Your task to perform on an android device: delete browsing data in the chrome app Image 0: 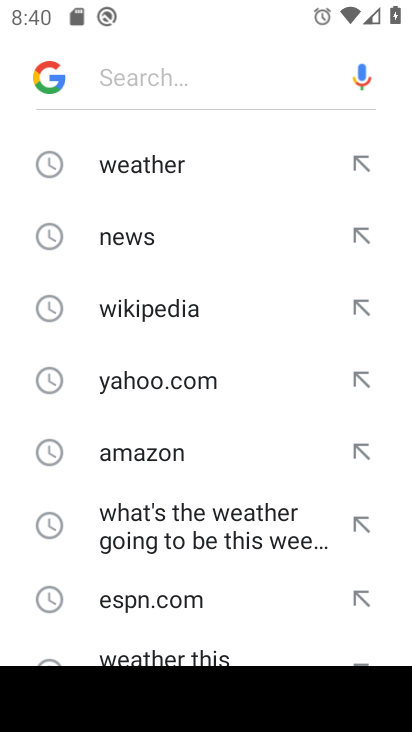
Step 0: press home button
Your task to perform on an android device: delete browsing data in the chrome app Image 1: 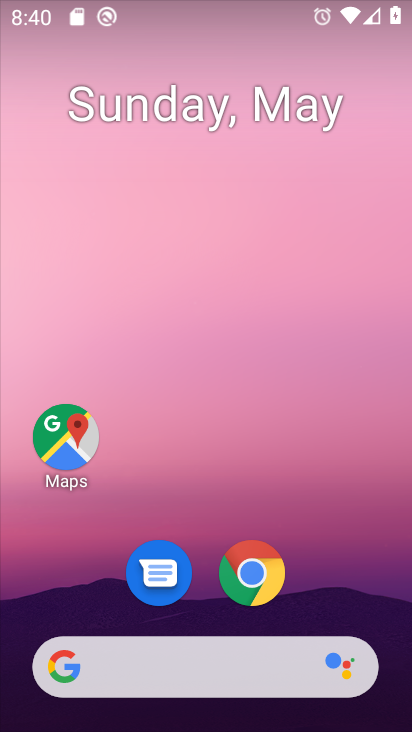
Step 1: click (245, 578)
Your task to perform on an android device: delete browsing data in the chrome app Image 2: 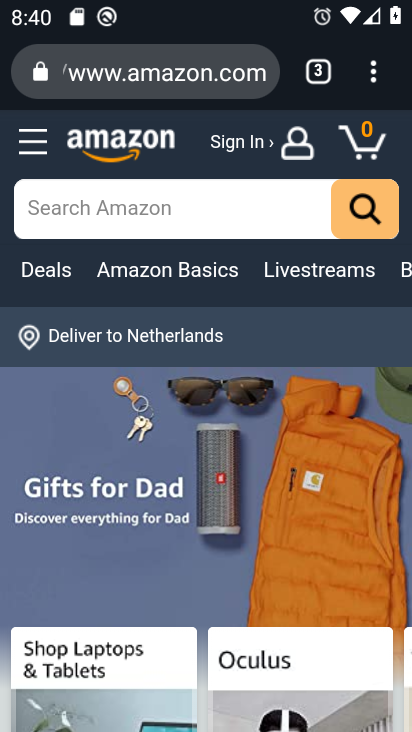
Step 2: click (374, 78)
Your task to perform on an android device: delete browsing data in the chrome app Image 3: 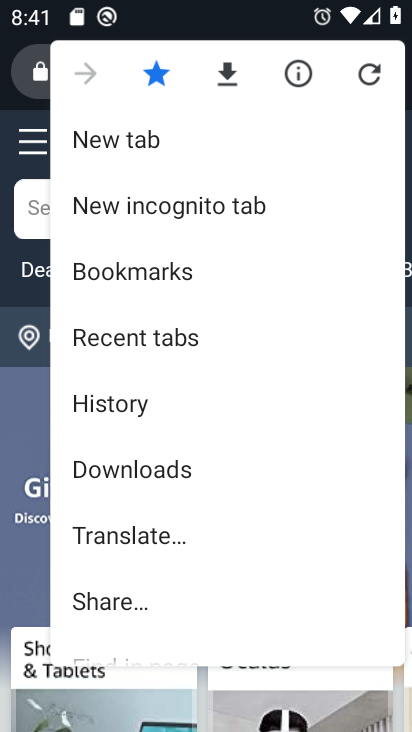
Step 3: click (130, 405)
Your task to perform on an android device: delete browsing data in the chrome app Image 4: 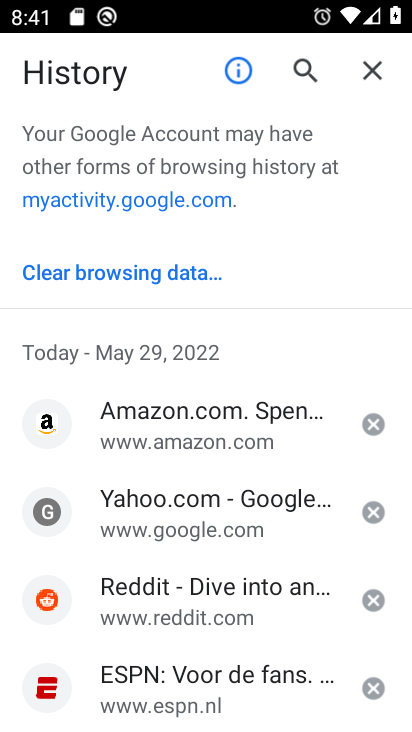
Step 4: click (137, 259)
Your task to perform on an android device: delete browsing data in the chrome app Image 5: 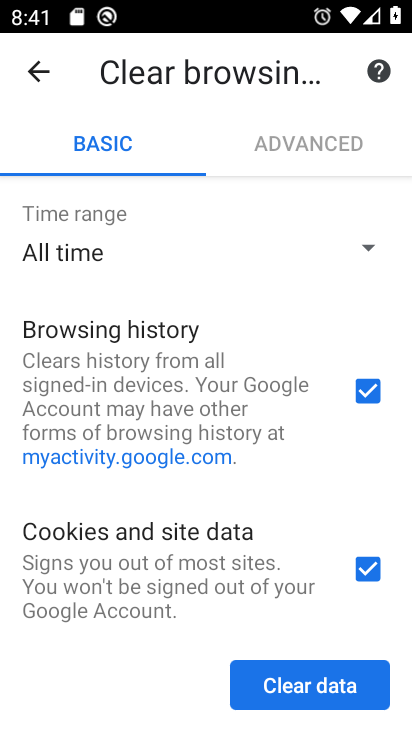
Step 5: click (297, 689)
Your task to perform on an android device: delete browsing data in the chrome app Image 6: 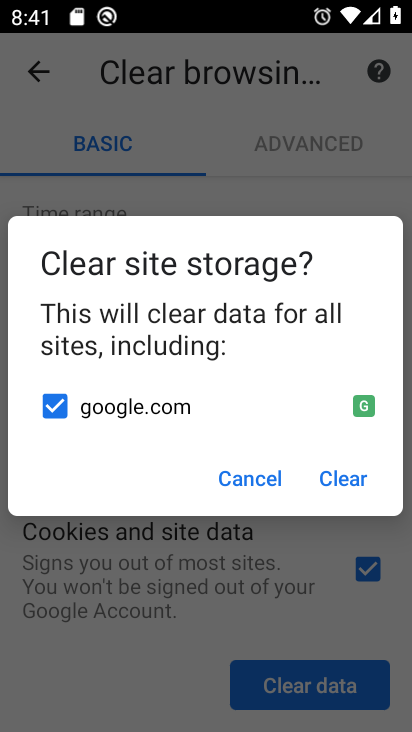
Step 6: click (341, 460)
Your task to perform on an android device: delete browsing data in the chrome app Image 7: 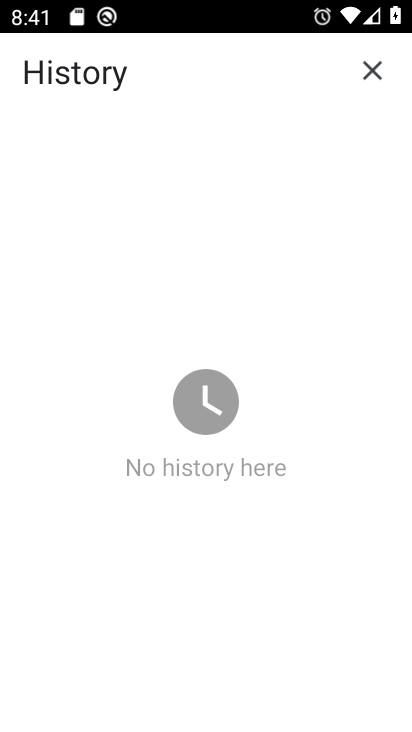
Step 7: task complete